Your task to perform on an android device: toggle wifi Image 0: 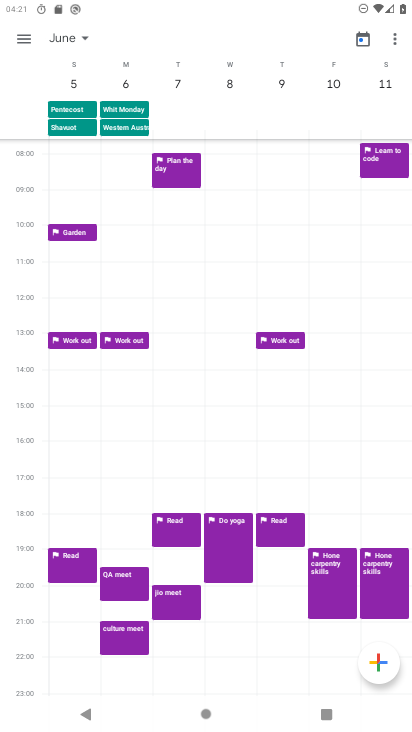
Step 0: press home button
Your task to perform on an android device: toggle wifi Image 1: 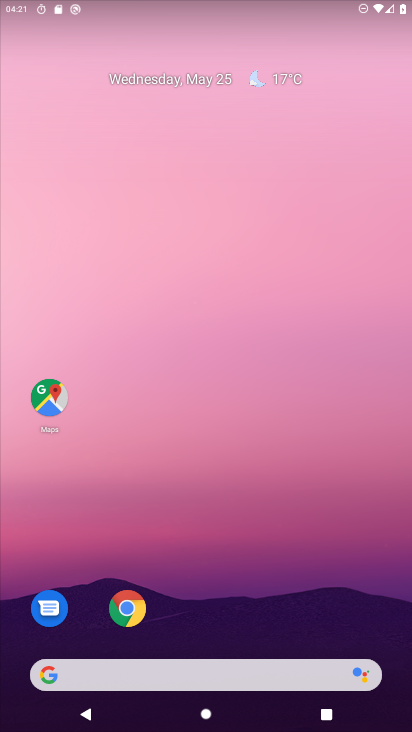
Step 1: drag from (219, 573) to (229, 93)
Your task to perform on an android device: toggle wifi Image 2: 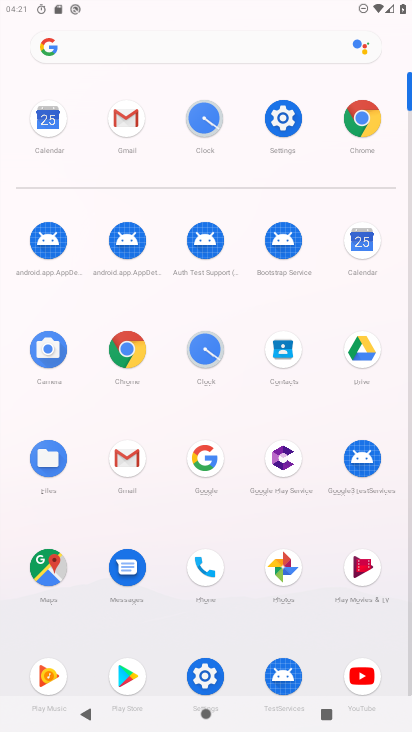
Step 2: click (274, 119)
Your task to perform on an android device: toggle wifi Image 3: 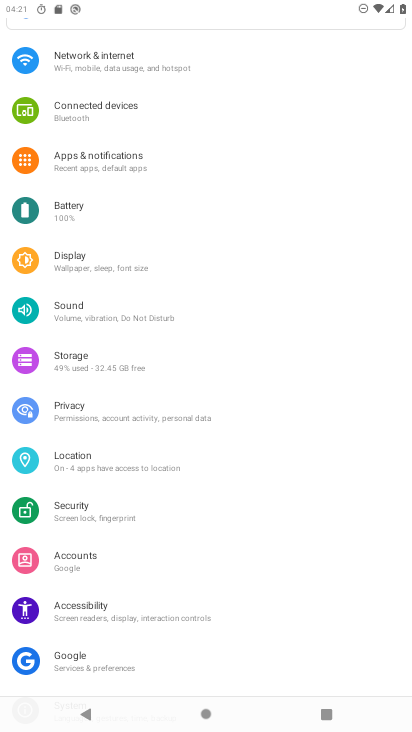
Step 3: drag from (221, 120) to (241, 592)
Your task to perform on an android device: toggle wifi Image 4: 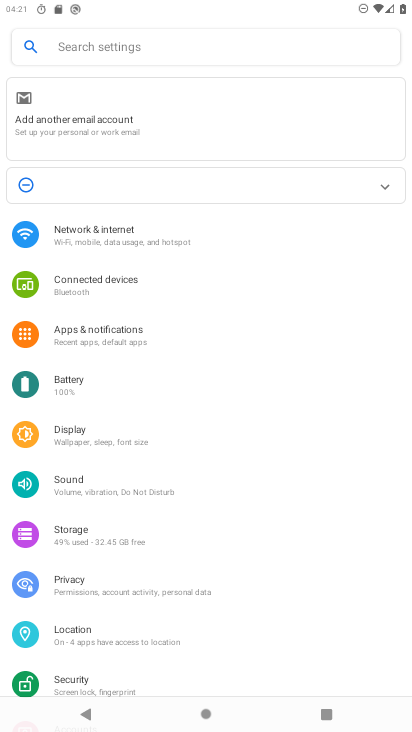
Step 4: click (122, 245)
Your task to perform on an android device: toggle wifi Image 5: 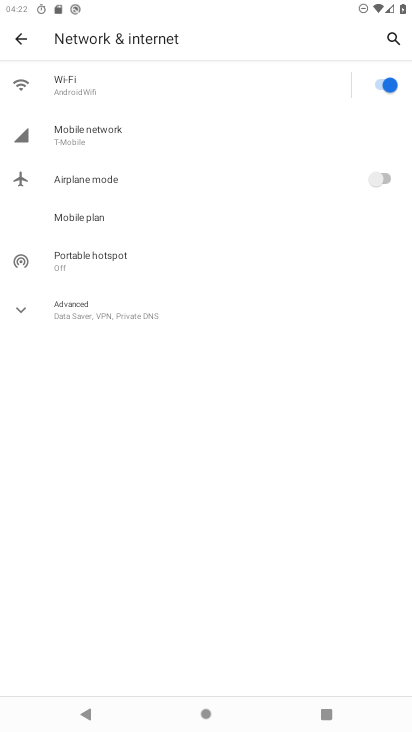
Step 5: click (389, 84)
Your task to perform on an android device: toggle wifi Image 6: 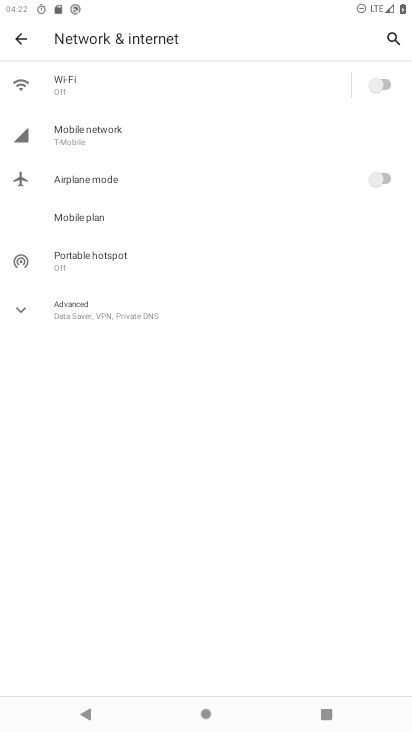
Step 6: task complete